Your task to perform on an android device: Search for flights from Mexico city to Zurich Image 0: 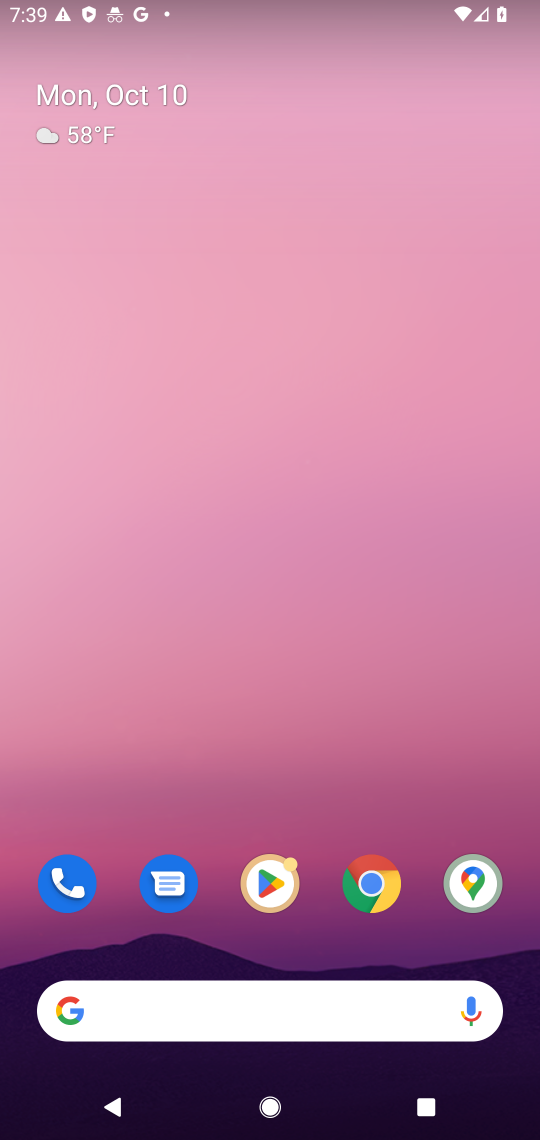
Step 0: drag from (204, 870) to (212, 84)
Your task to perform on an android device: Search for flights from Mexico city to Zurich Image 1: 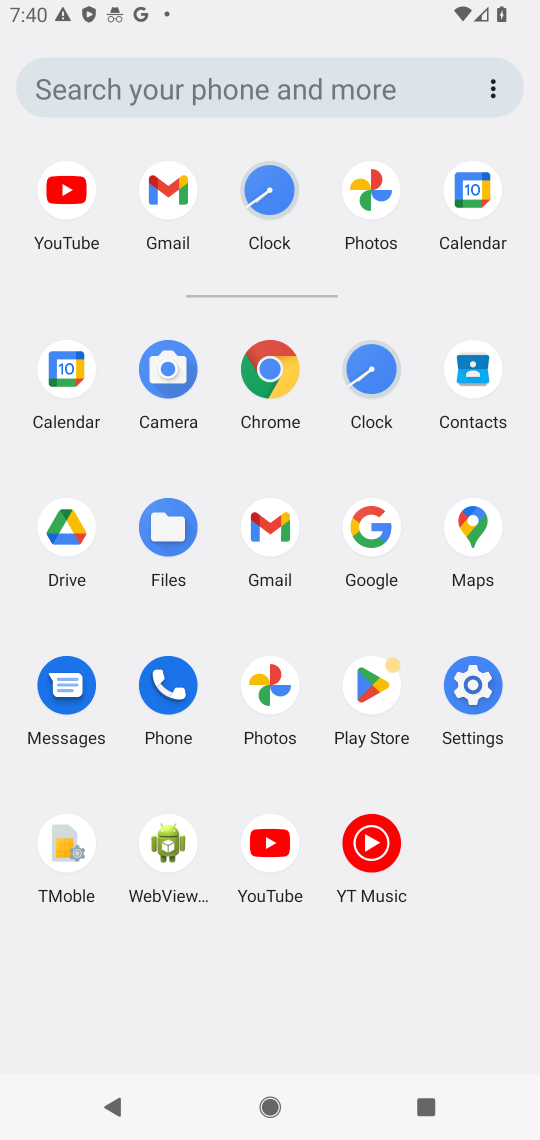
Step 1: click (358, 564)
Your task to perform on an android device: Search for flights from Mexico city to Zurich Image 2: 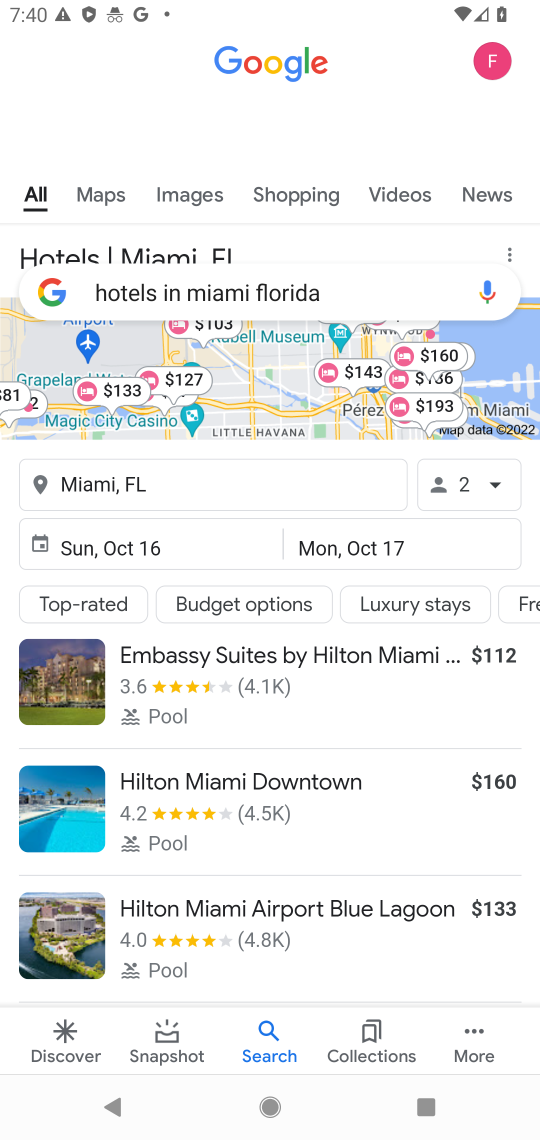
Step 2: click (417, 290)
Your task to perform on an android device: Search for flights from Mexico city to Zurich Image 3: 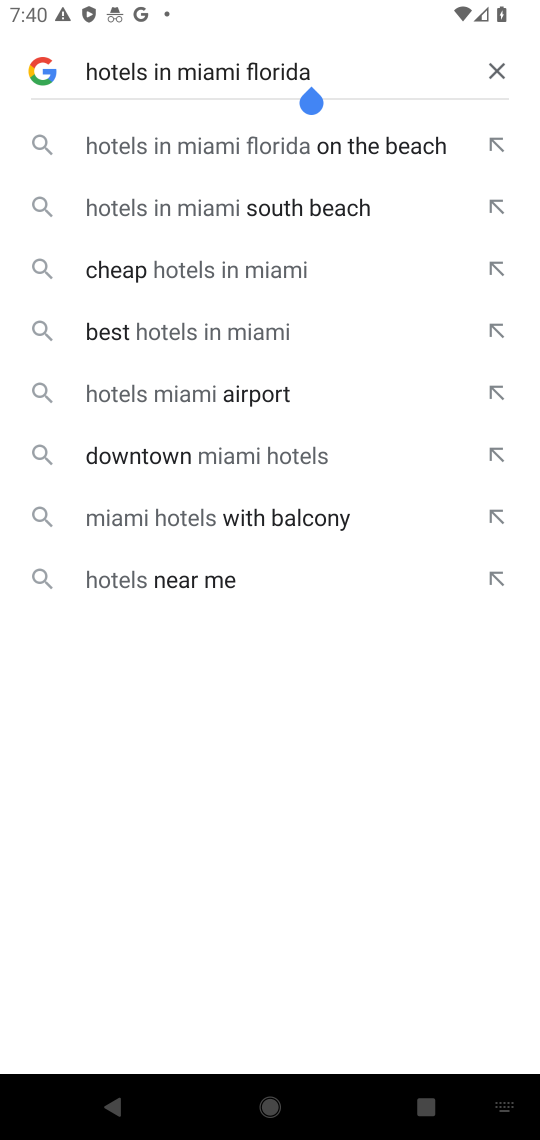
Step 3: click (500, 74)
Your task to perform on an android device: Search for flights from Mexico city to Zurich Image 4: 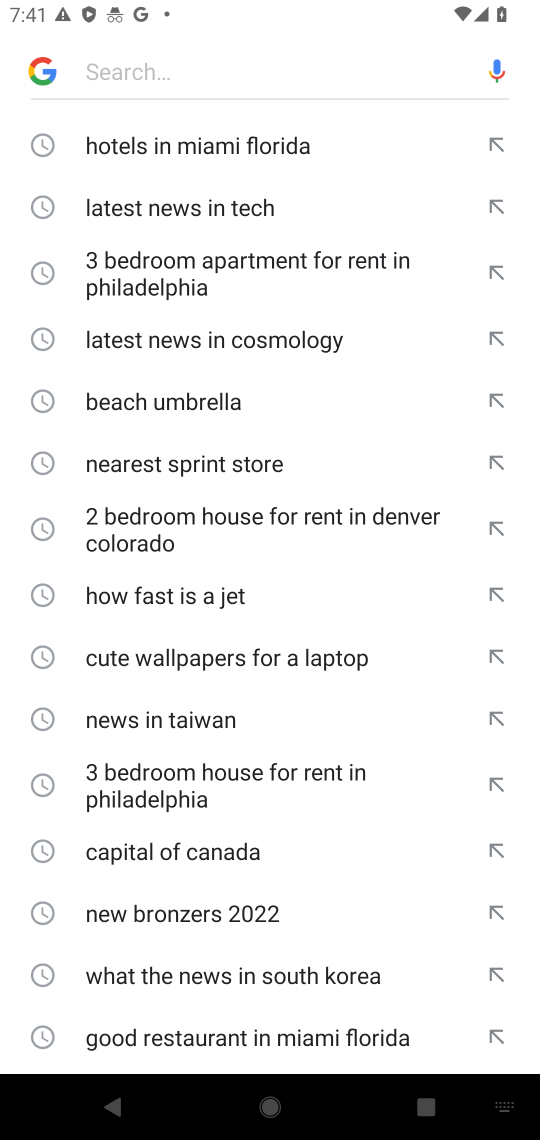
Step 4: type "flights from Mexico city to Zurich"
Your task to perform on an android device: Search for flights from Mexico city to Zurich Image 5: 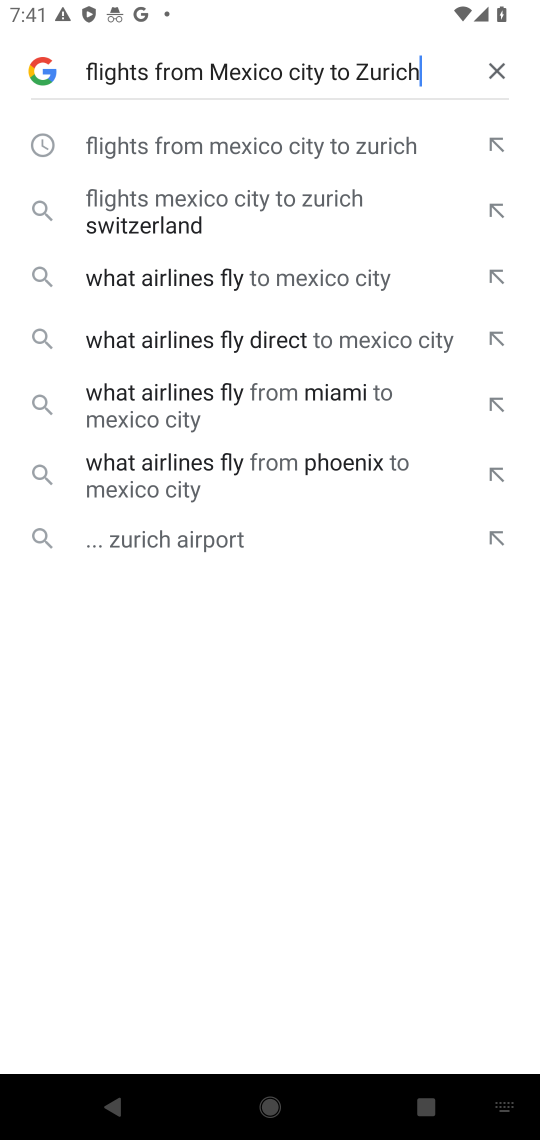
Step 5: click (303, 153)
Your task to perform on an android device: Search for flights from Mexico city to Zurich Image 6: 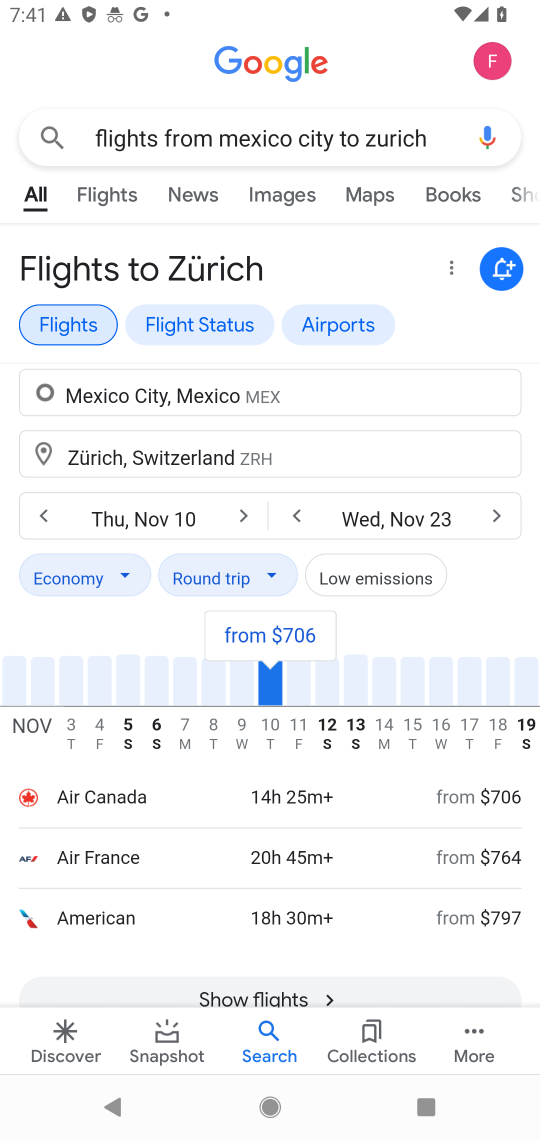
Step 6: task complete